Your task to perform on an android device: Open Google Image 0: 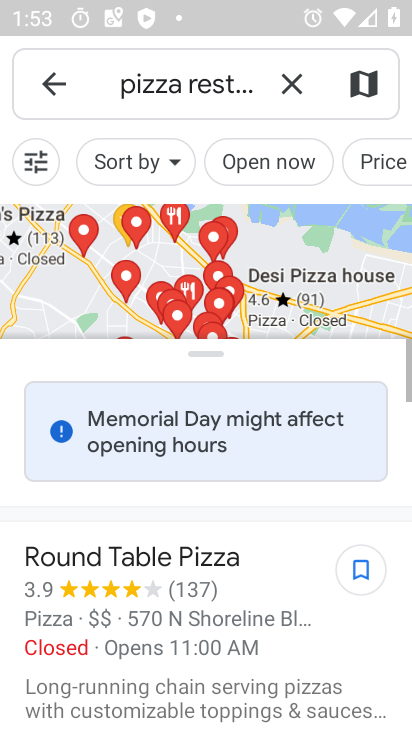
Step 0: press back button
Your task to perform on an android device: Open Google Image 1: 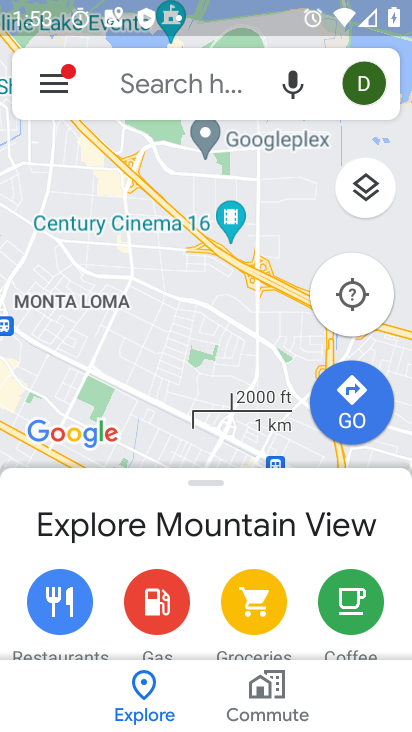
Step 1: press back button
Your task to perform on an android device: Open Google Image 2: 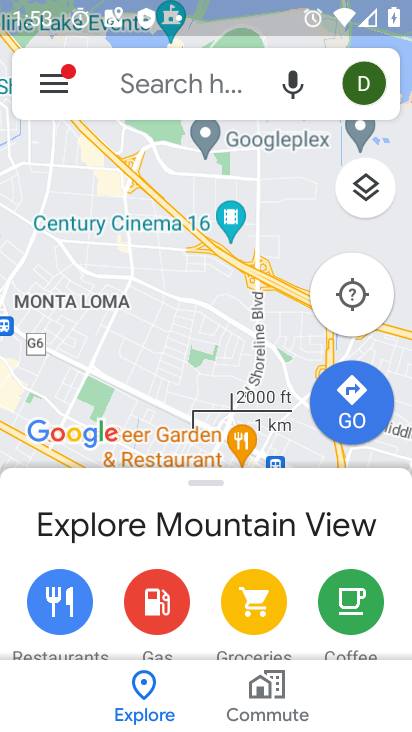
Step 2: press back button
Your task to perform on an android device: Open Google Image 3: 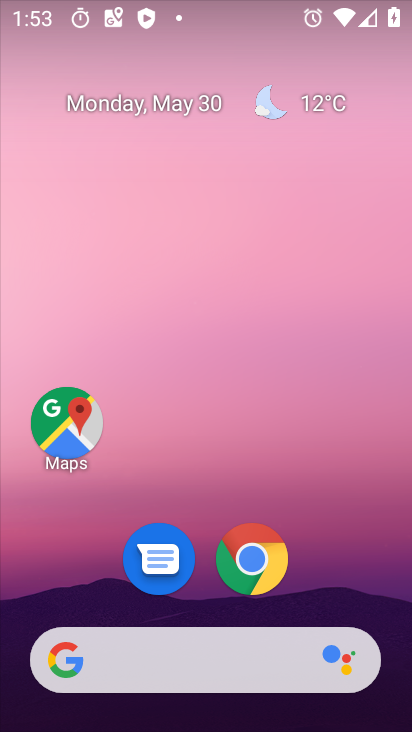
Step 3: click (228, 23)
Your task to perform on an android device: Open Google Image 4: 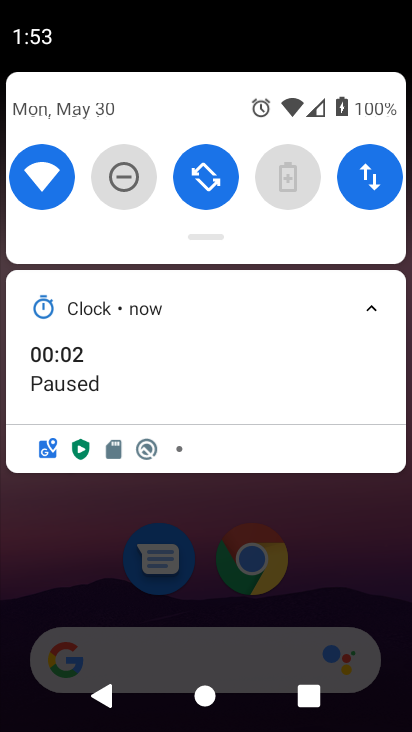
Step 4: drag from (161, 493) to (272, 18)
Your task to perform on an android device: Open Google Image 5: 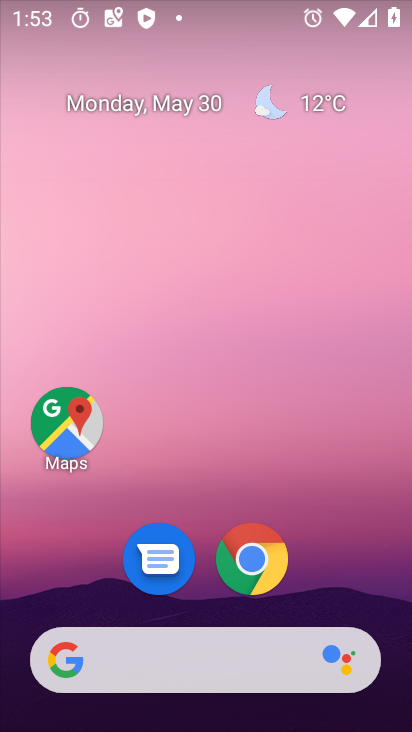
Step 5: drag from (200, 462) to (234, 37)
Your task to perform on an android device: Open Google Image 6: 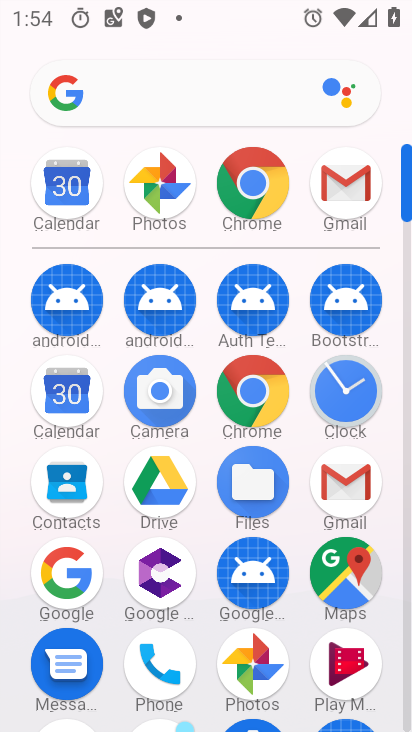
Step 6: click (64, 576)
Your task to perform on an android device: Open Google Image 7: 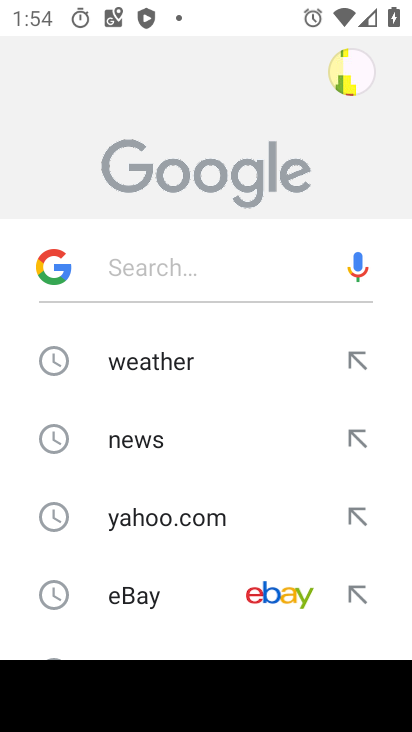
Step 7: task complete